Your task to perform on an android device: Go to calendar. Show me events next week Image 0: 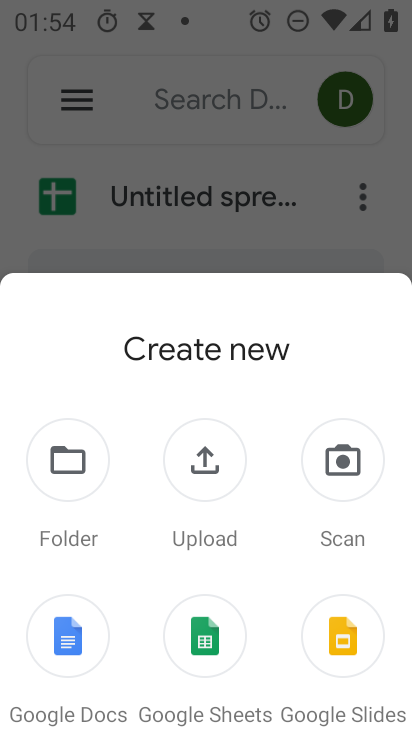
Step 0: press home button
Your task to perform on an android device: Go to calendar. Show me events next week Image 1: 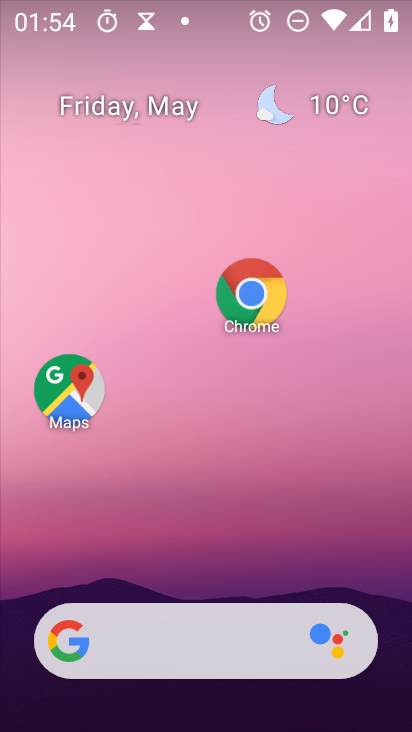
Step 1: drag from (154, 650) to (271, 189)
Your task to perform on an android device: Go to calendar. Show me events next week Image 2: 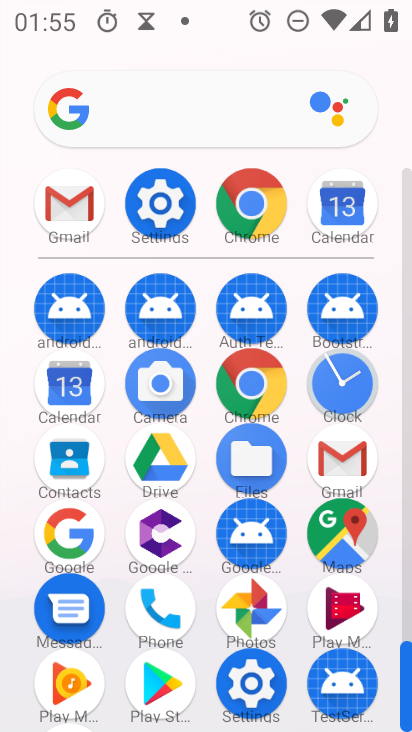
Step 2: click (73, 397)
Your task to perform on an android device: Go to calendar. Show me events next week Image 3: 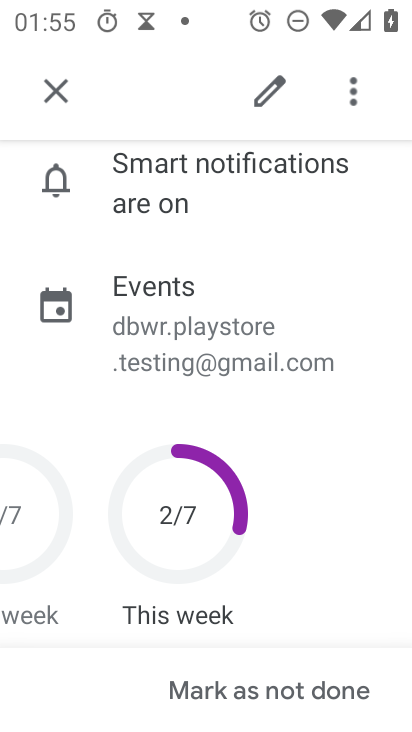
Step 3: click (69, 90)
Your task to perform on an android device: Go to calendar. Show me events next week Image 4: 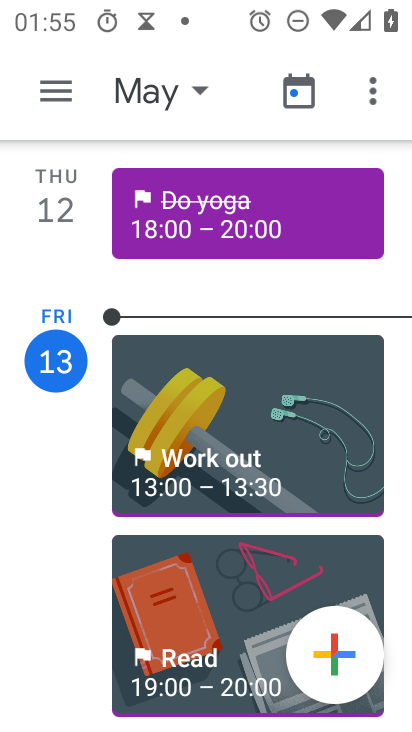
Step 4: click (134, 92)
Your task to perform on an android device: Go to calendar. Show me events next week Image 5: 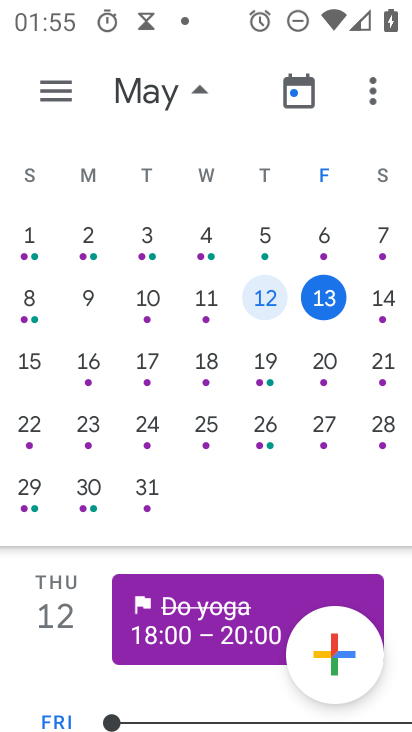
Step 5: click (32, 362)
Your task to perform on an android device: Go to calendar. Show me events next week Image 6: 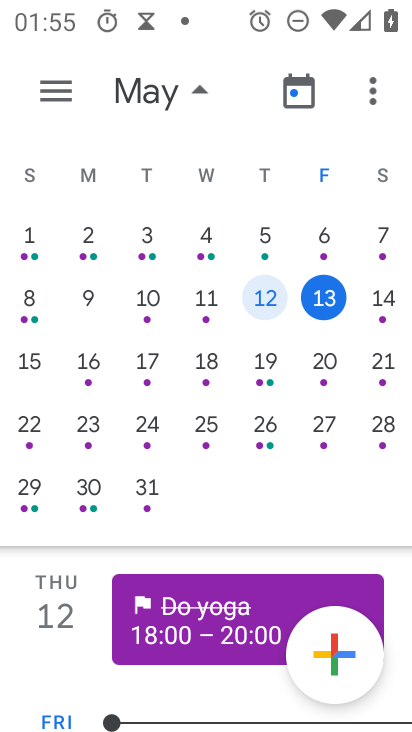
Step 6: click (36, 364)
Your task to perform on an android device: Go to calendar. Show me events next week Image 7: 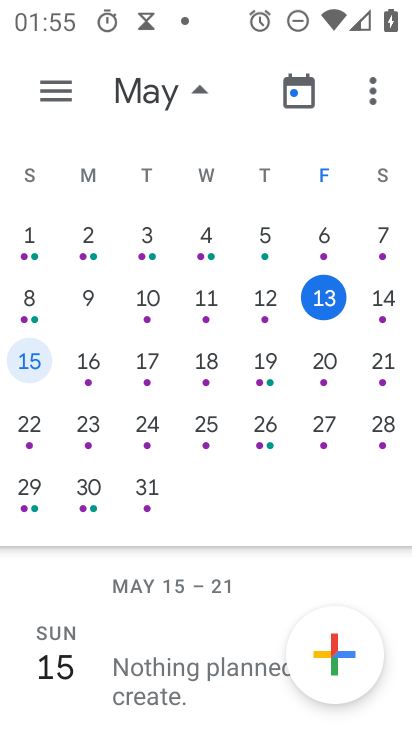
Step 7: click (57, 80)
Your task to perform on an android device: Go to calendar. Show me events next week Image 8: 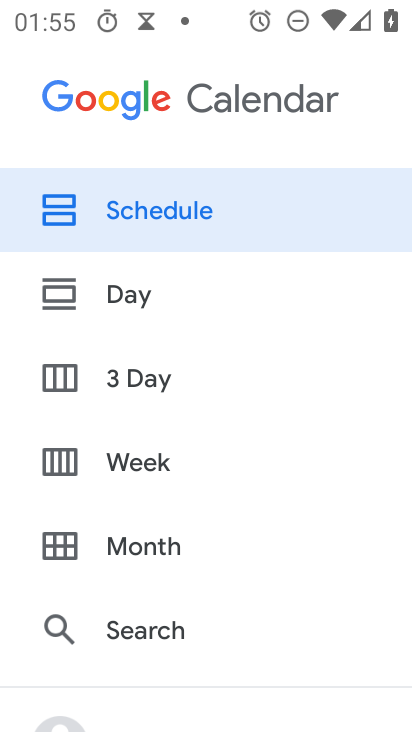
Step 8: click (131, 459)
Your task to perform on an android device: Go to calendar. Show me events next week Image 9: 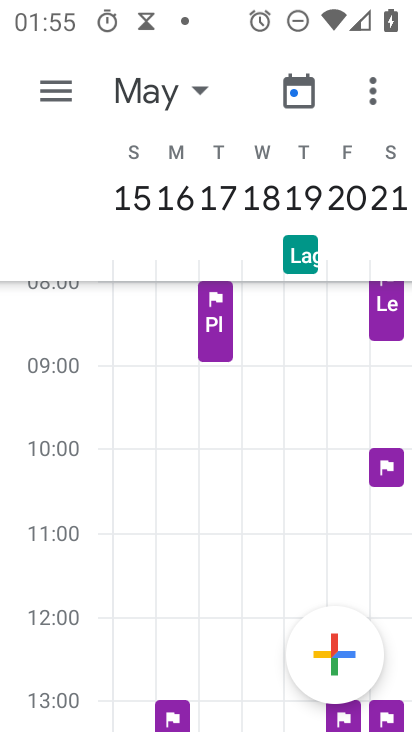
Step 9: click (55, 91)
Your task to perform on an android device: Go to calendar. Show me events next week Image 10: 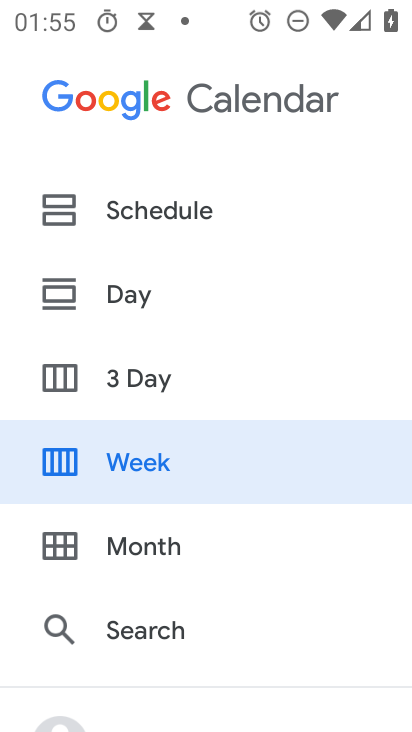
Step 10: click (142, 203)
Your task to perform on an android device: Go to calendar. Show me events next week Image 11: 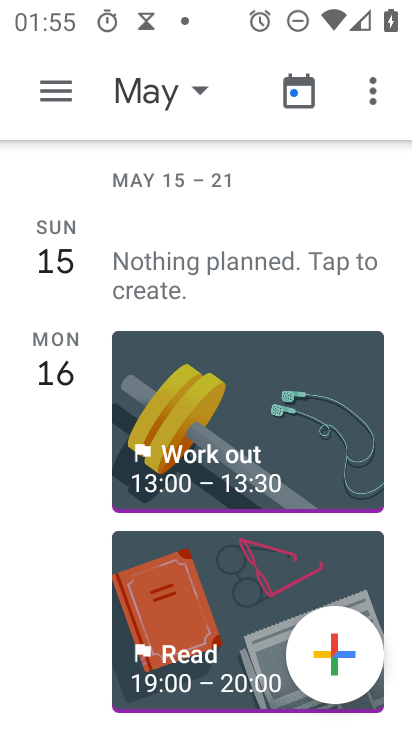
Step 11: drag from (238, 608) to (293, 63)
Your task to perform on an android device: Go to calendar. Show me events next week Image 12: 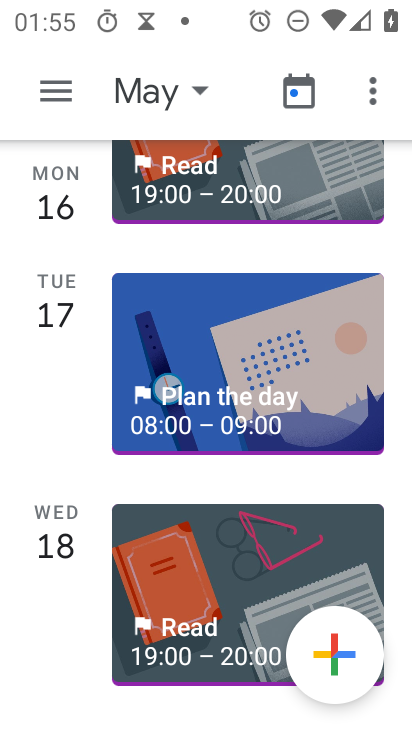
Step 12: drag from (153, 562) to (261, 193)
Your task to perform on an android device: Go to calendar. Show me events next week Image 13: 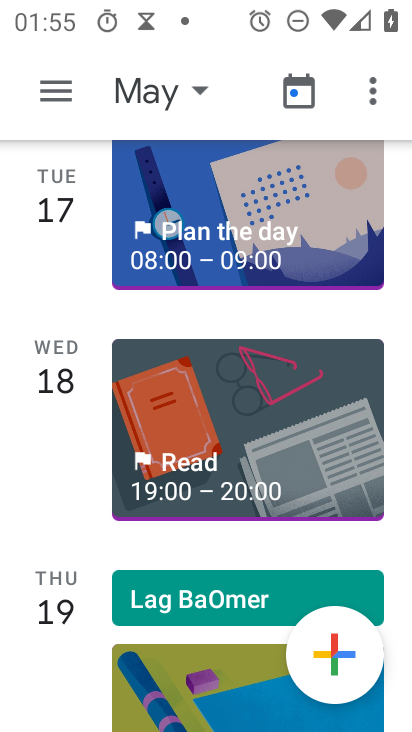
Step 13: drag from (112, 597) to (303, 124)
Your task to perform on an android device: Go to calendar. Show me events next week Image 14: 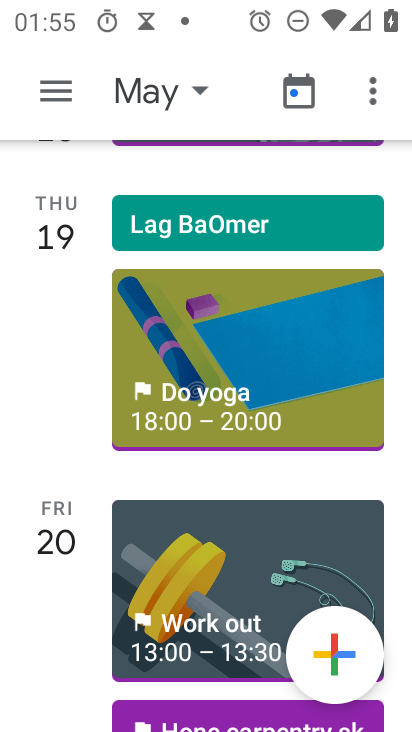
Step 14: drag from (182, 616) to (300, 293)
Your task to perform on an android device: Go to calendar. Show me events next week Image 15: 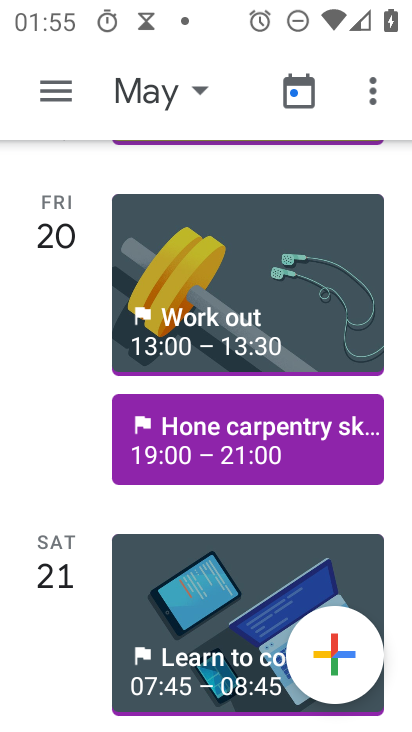
Step 15: click (240, 443)
Your task to perform on an android device: Go to calendar. Show me events next week Image 16: 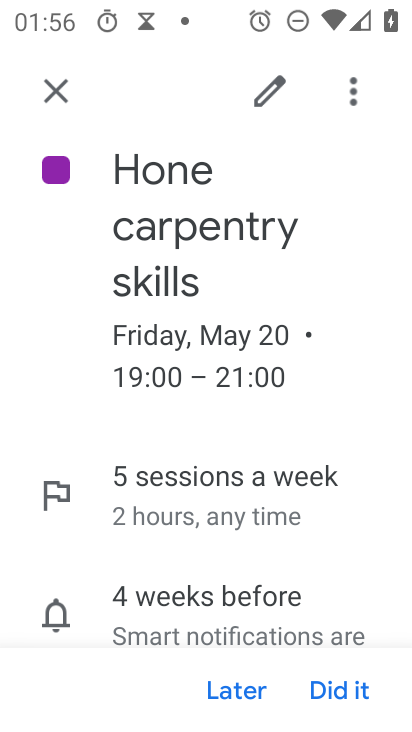
Step 16: task complete